Your task to perform on an android device: install app "DoorDash - Dasher" Image 0: 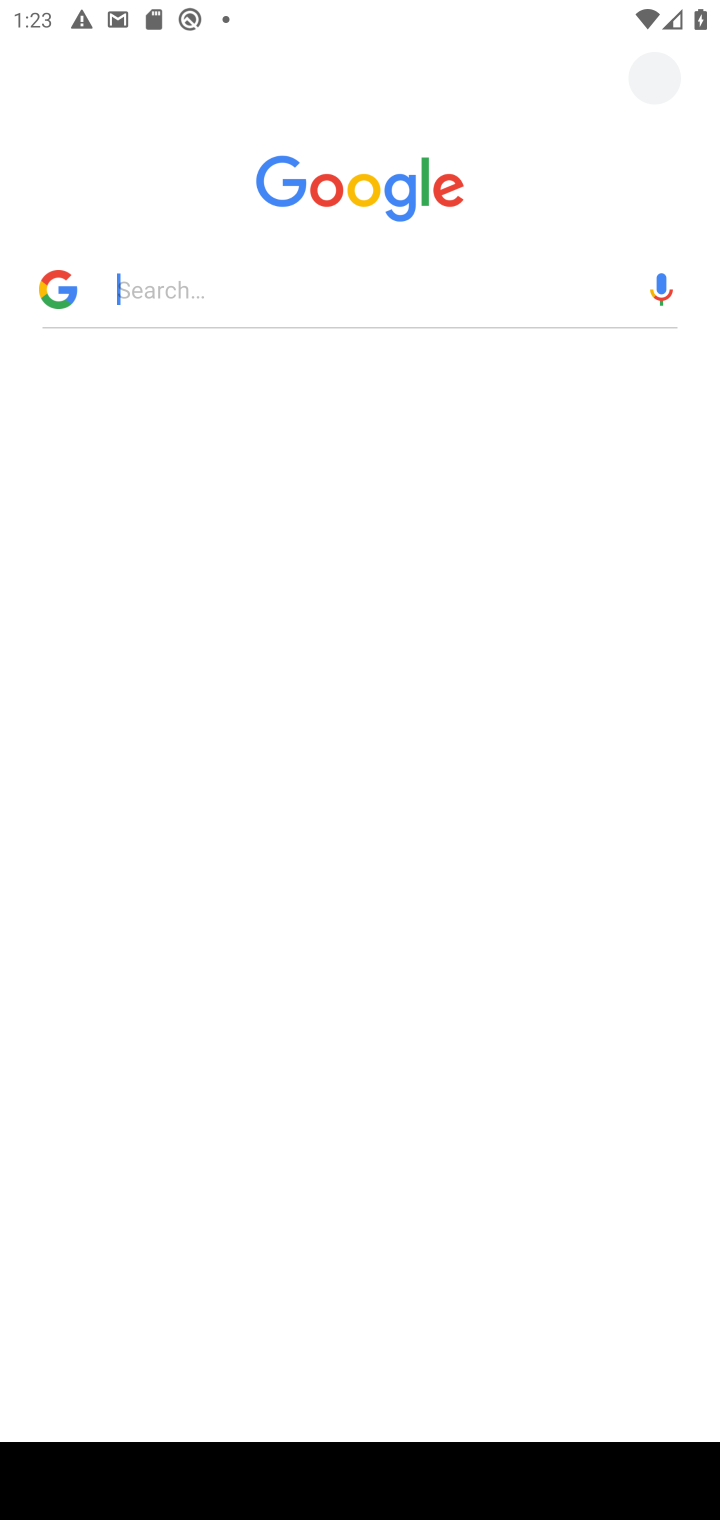
Step 0: press home button
Your task to perform on an android device: install app "DoorDash - Dasher" Image 1: 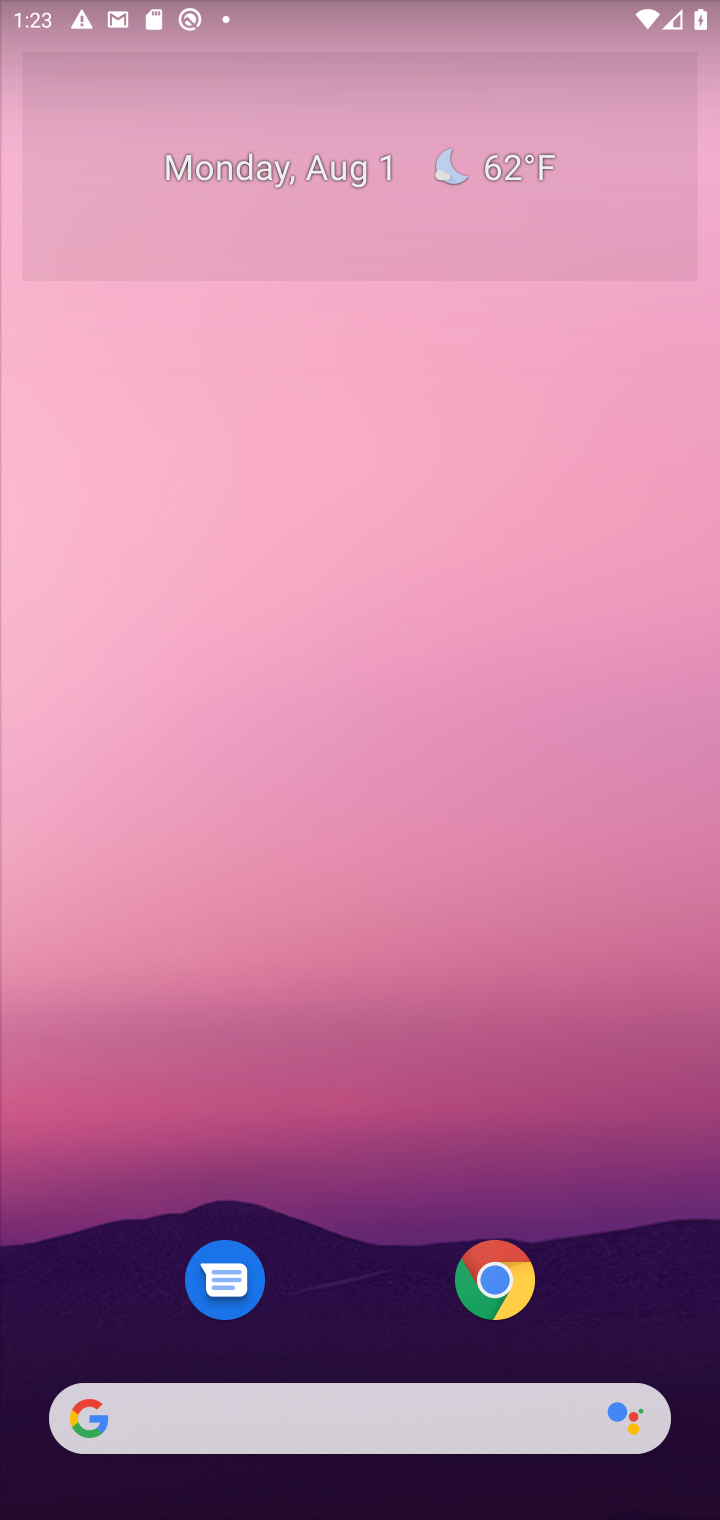
Step 1: drag from (356, 214) to (358, 1)
Your task to perform on an android device: install app "DoorDash - Dasher" Image 2: 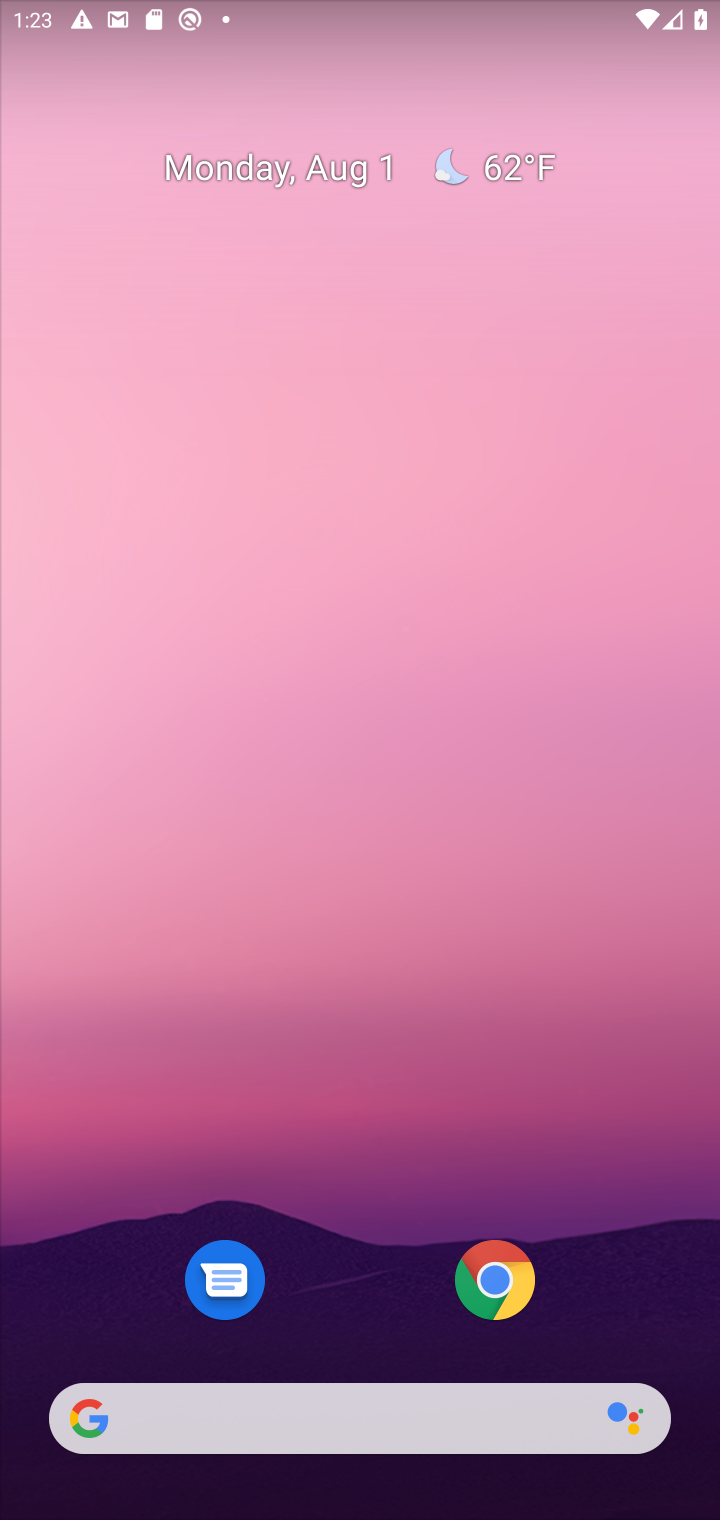
Step 2: drag from (330, 1310) to (320, 223)
Your task to perform on an android device: install app "DoorDash - Dasher" Image 3: 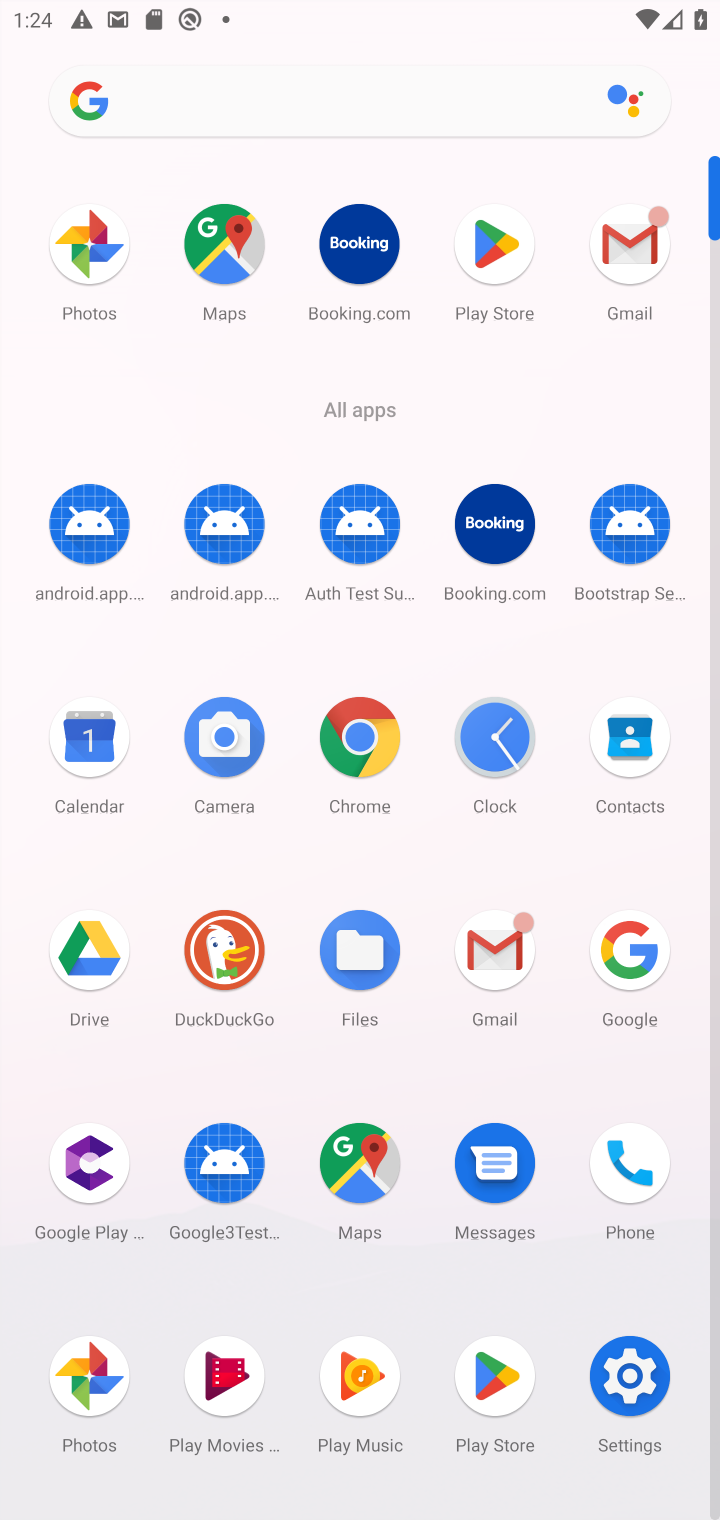
Step 3: click (483, 240)
Your task to perform on an android device: install app "DoorDash - Dasher" Image 4: 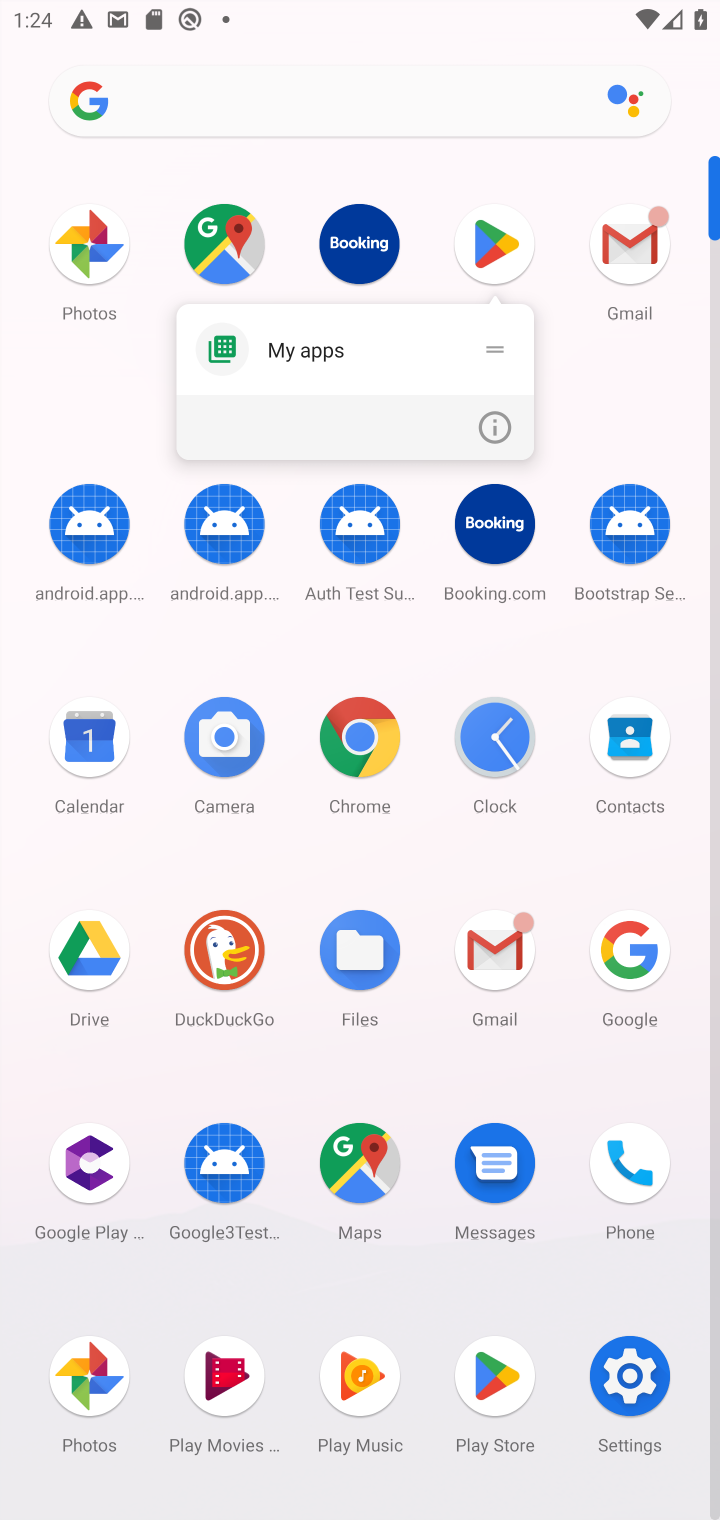
Step 4: click (503, 234)
Your task to perform on an android device: install app "DoorDash - Dasher" Image 5: 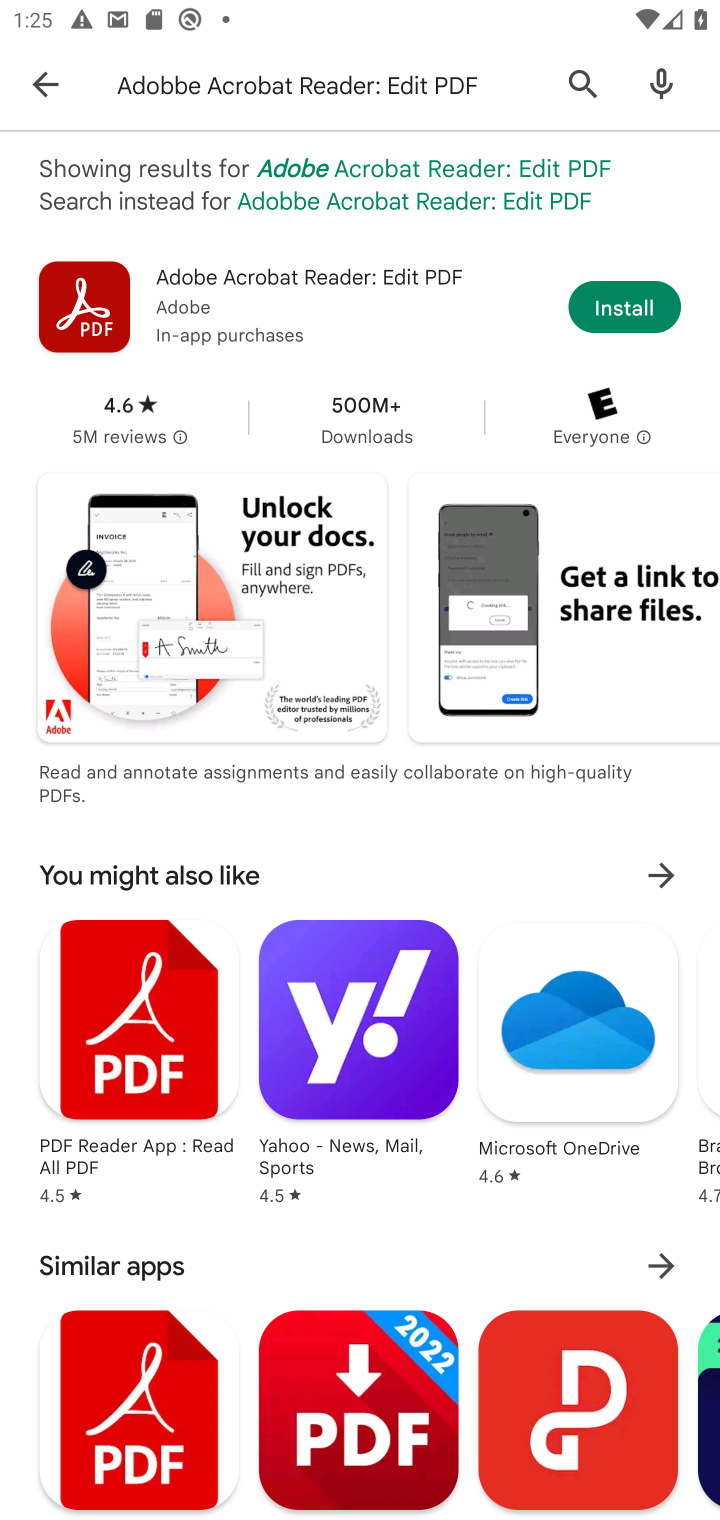
Step 5: click (452, 92)
Your task to perform on an android device: install app "DoorDash - Dasher" Image 6: 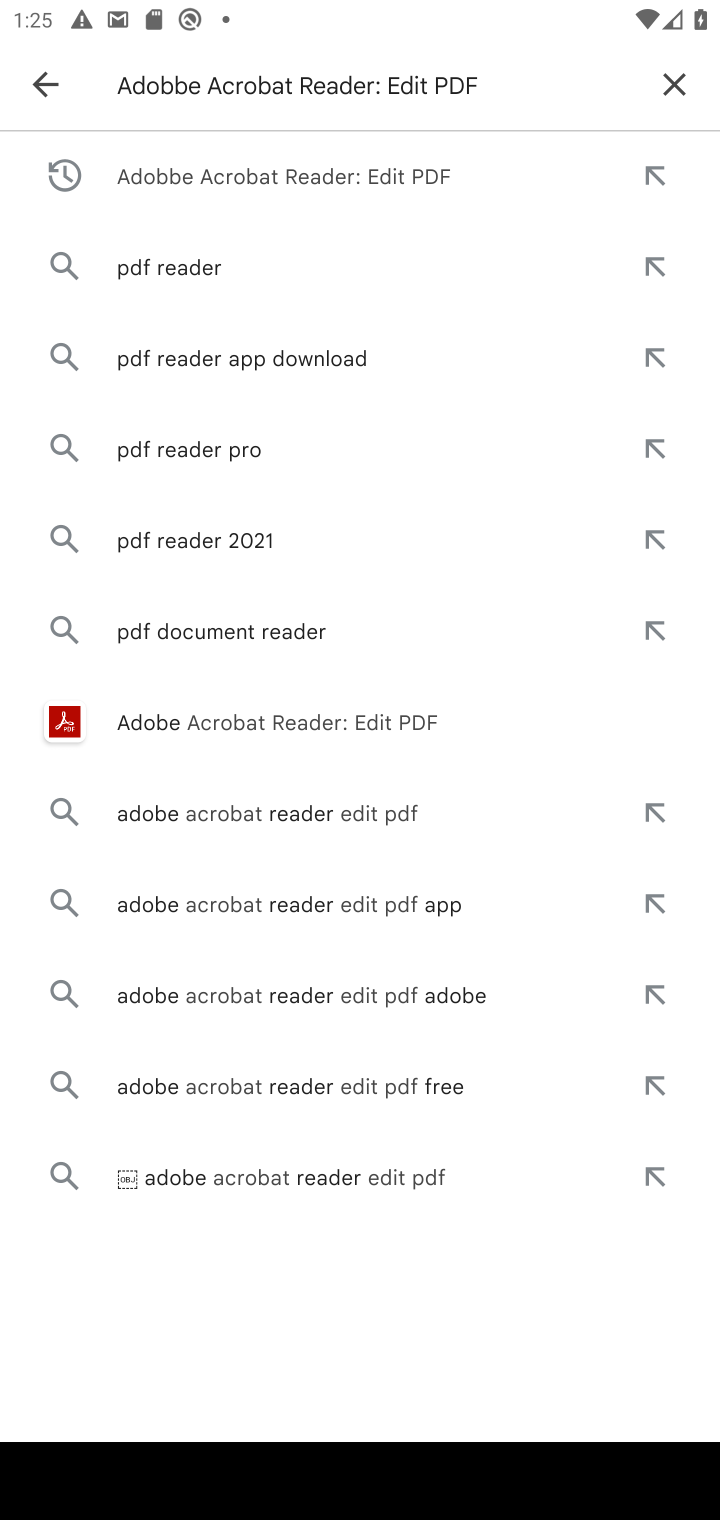
Step 6: click (665, 74)
Your task to perform on an android device: install app "DoorDash - Dasher" Image 7: 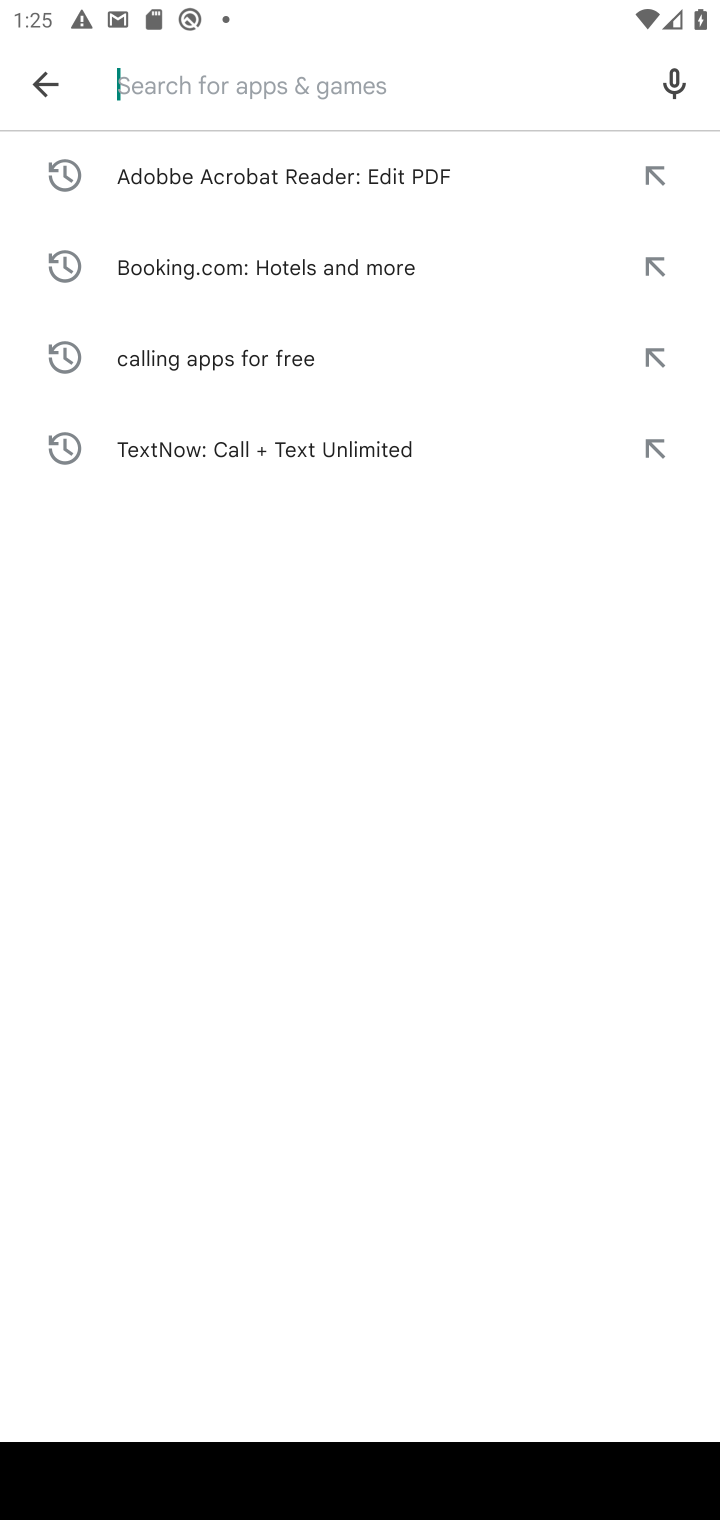
Step 7: type "DoorDash - Dasher"
Your task to perform on an android device: install app "DoorDash - Dasher" Image 8: 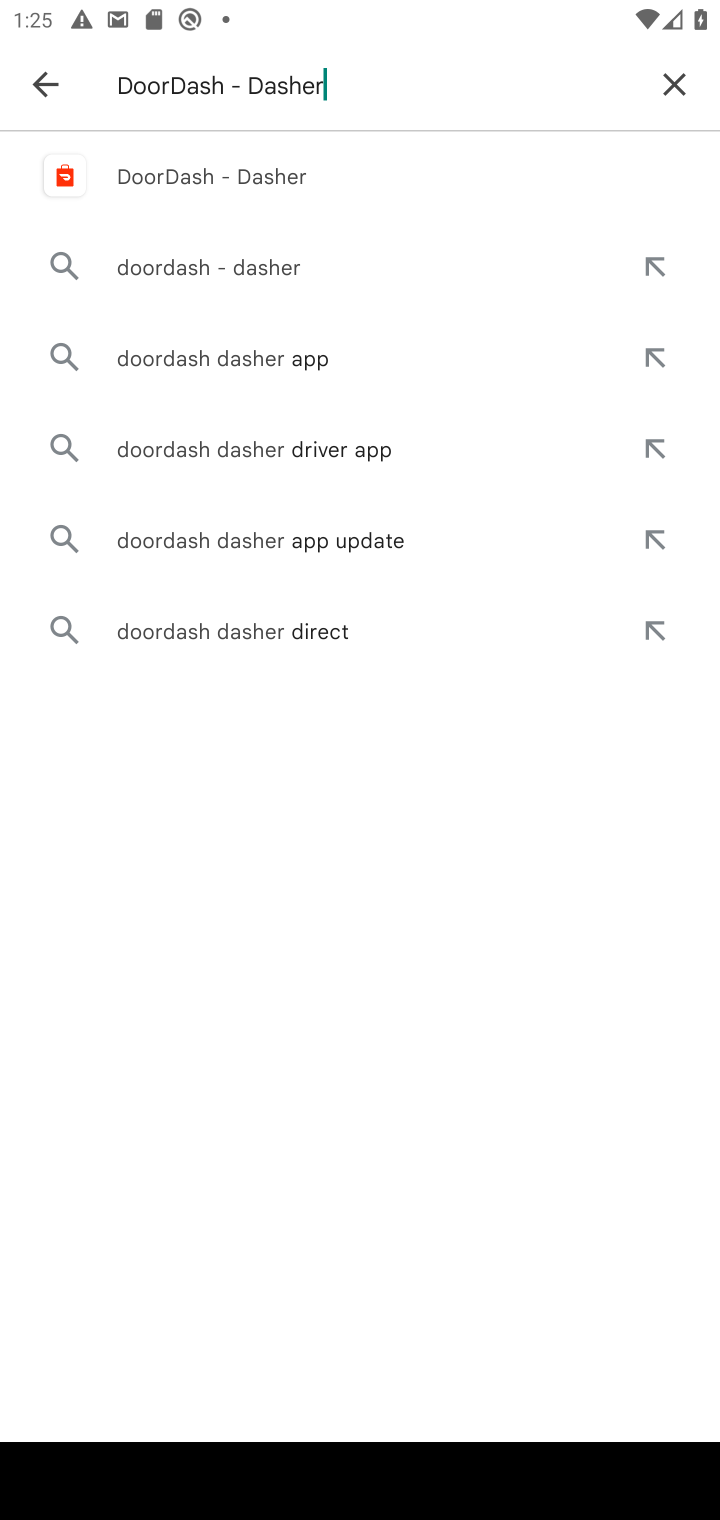
Step 8: click (88, 183)
Your task to perform on an android device: install app "DoorDash - Dasher" Image 9: 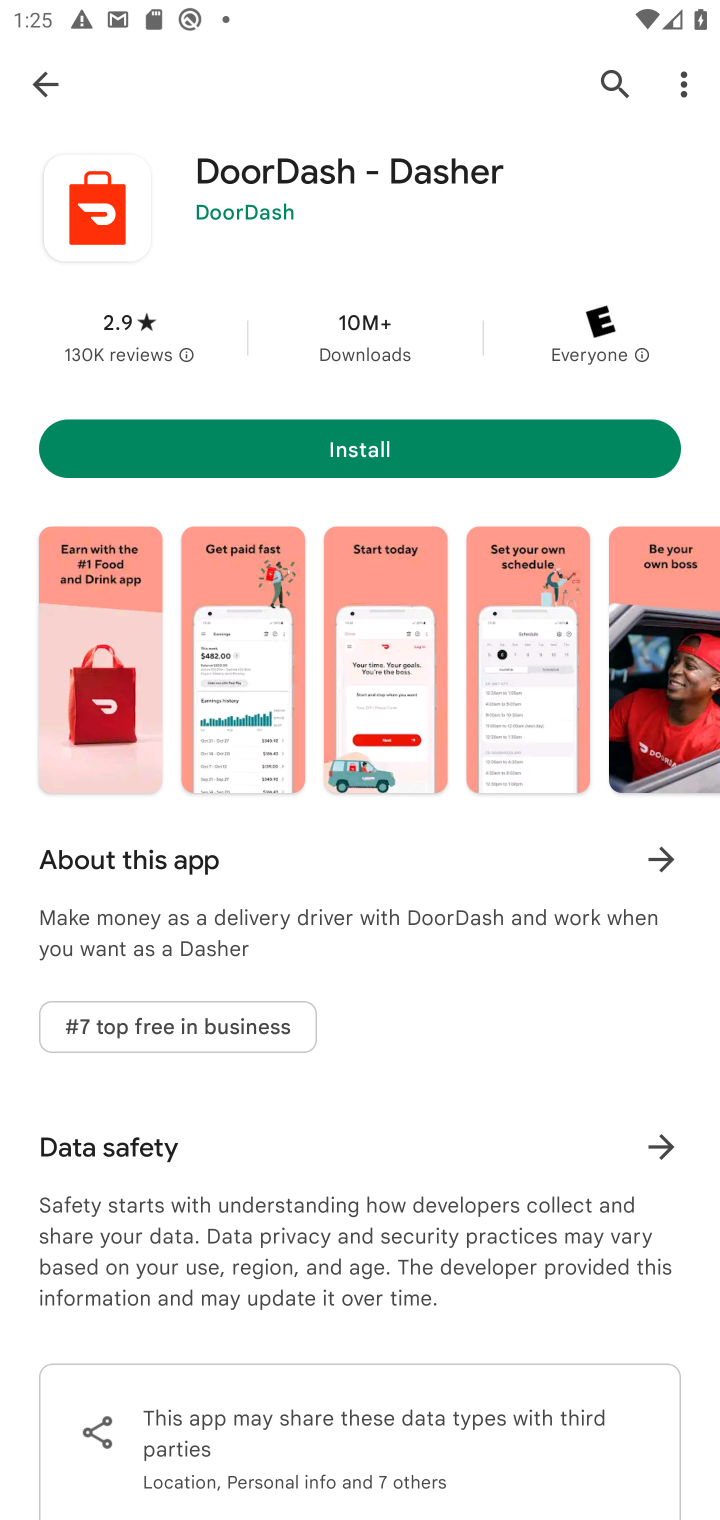
Step 9: click (498, 435)
Your task to perform on an android device: install app "DoorDash - Dasher" Image 10: 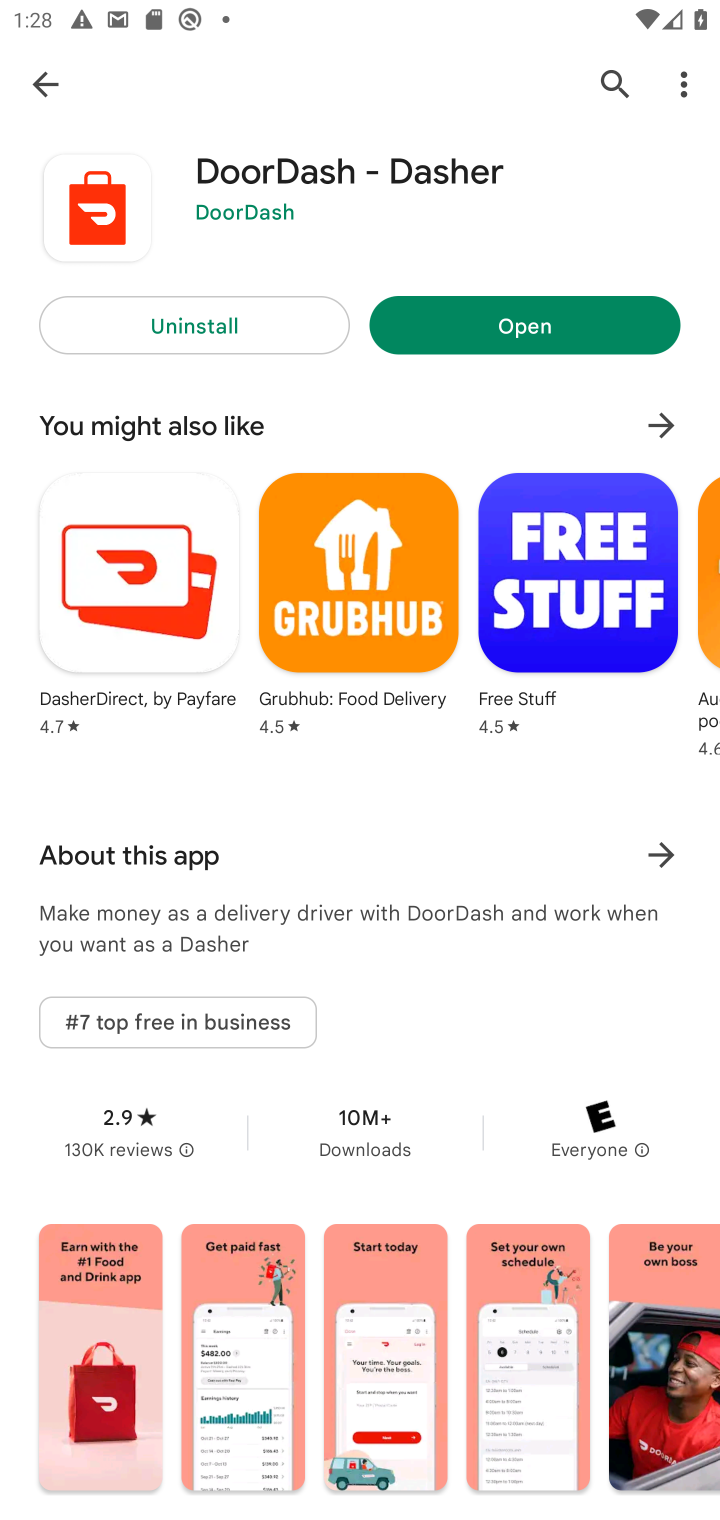
Step 10: task complete